Your task to perform on an android device: Search for the best rated headphones on Amazon. Image 0: 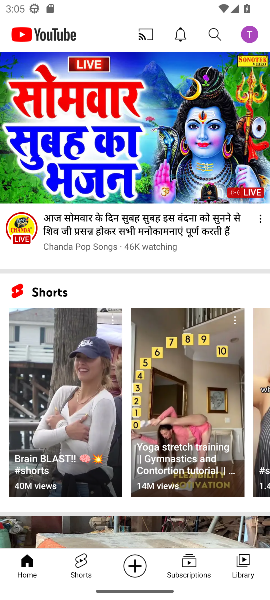
Step 0: press home button
Your task to perform on an android device: Search for the best rated headphones on Amazon. Image 1: 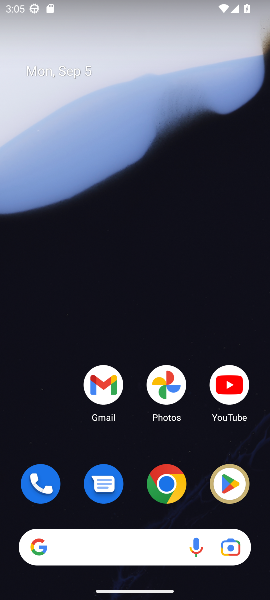
Step 1: click (162, 495)
Your task to perform on an android device: Search for the best rated headphones on Amazon. Image 2: 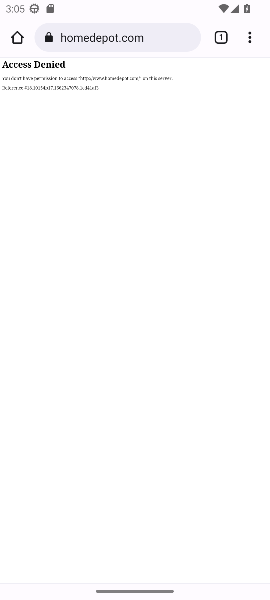
Step 2: click (160, 33)
Your task to perform on an android device: Search for the best rated headphones on Amazon. Image 3: 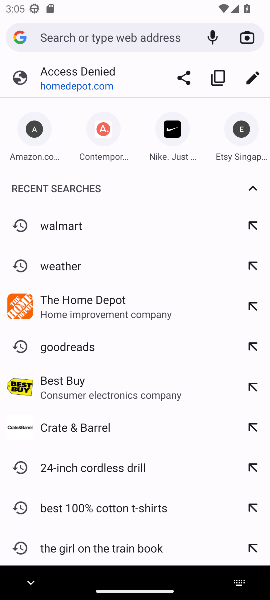
Step 3: type "Amazon"
Your task to perform on an android device: Search for the best rated headphones on Amazon. Image 4: 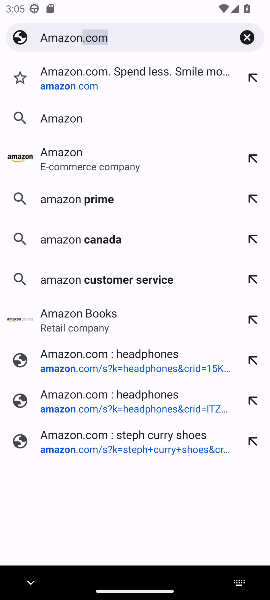
Step 4: click (76, 87)
Your task to perform on an android device: Search for the best rated headphones on Amazon. Image 5: 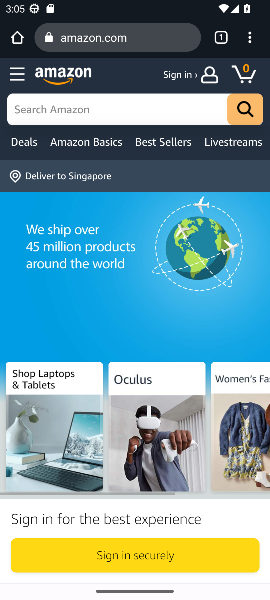
Step 5: click (122, 113)
Your task to perform on an android device: Search for the best rated headphones on Amazon. Image 6: 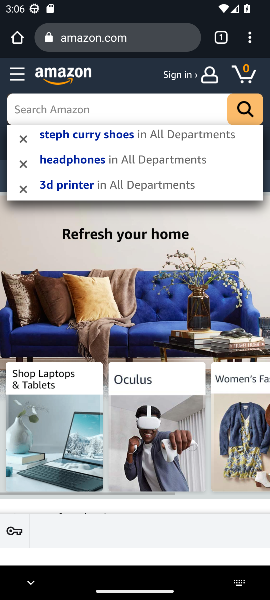
Step 6: type " headphones "
Your task to perform on an android device: Search for the best rated headphones on Amazon. Image 7: 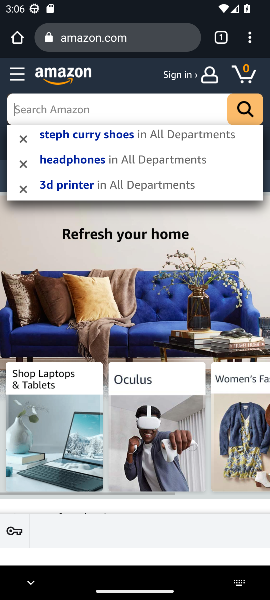
Step 7: press enter
Your task to perform on an android device: Search for the best rated headphones on Amazon. Image 8: 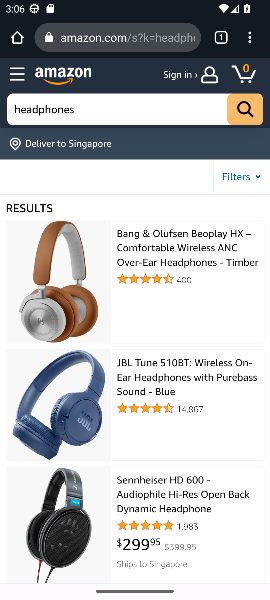
Step 8: task complete